Your task to perform on an android device: Set the phone to "Do not disturb". Image 0: 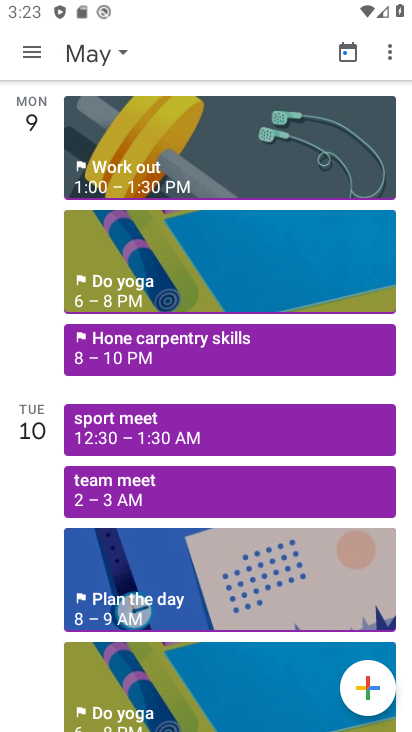
Step 0: press home button
Your task to perform on an android device: Set the phone to "Do not disturb". Image 1: 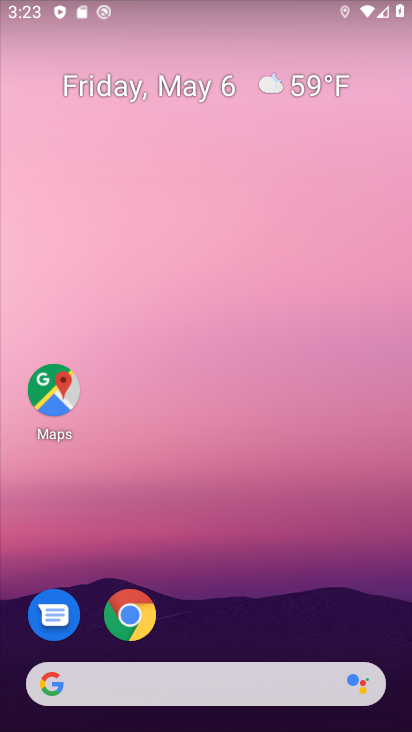
Step 1: drag from (267, 633) to (287, 231)
Your task to perform on an android device: Set the phone to "Do not disturb". Image 2: 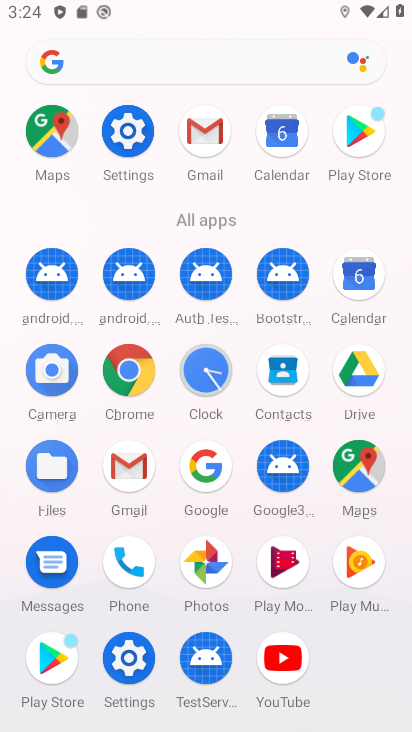
Step 2: drag from (114, 4) to (57, 439)
Your task to perform on an android device: Set the phone to "Do not disturb". Image 3: 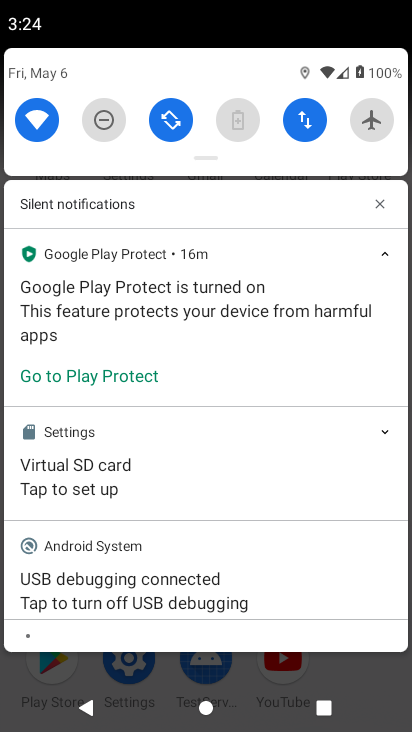
Step 3: drag from (108, 149) to (69, 640)
Your task to perform on an android device: Set the phone to "Do not disturb". Image 4: 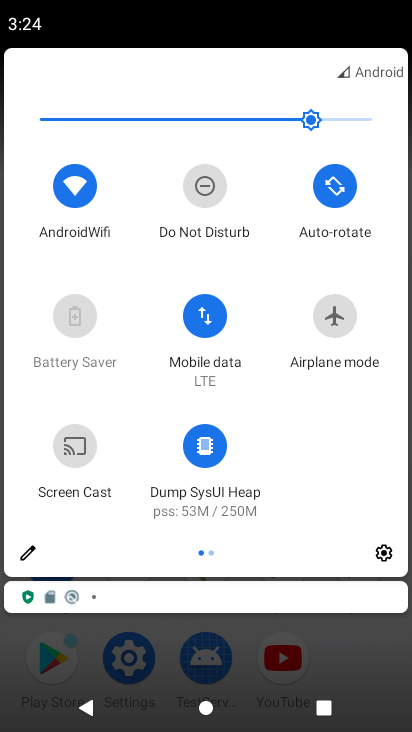
Step 4: click (206, 187)
Your task to perform on an android device: Set the phone to "Do not disturb". Image 5: 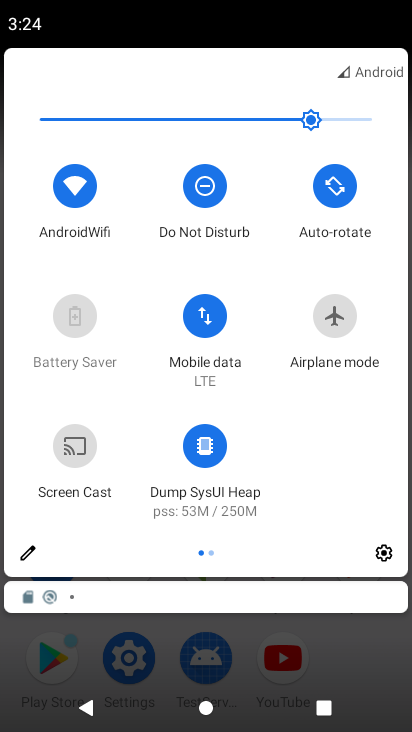
Step 5: task complete